Your task to perform on an android device: open app "Indeed Job Search" (install if not already installed) Image 0: 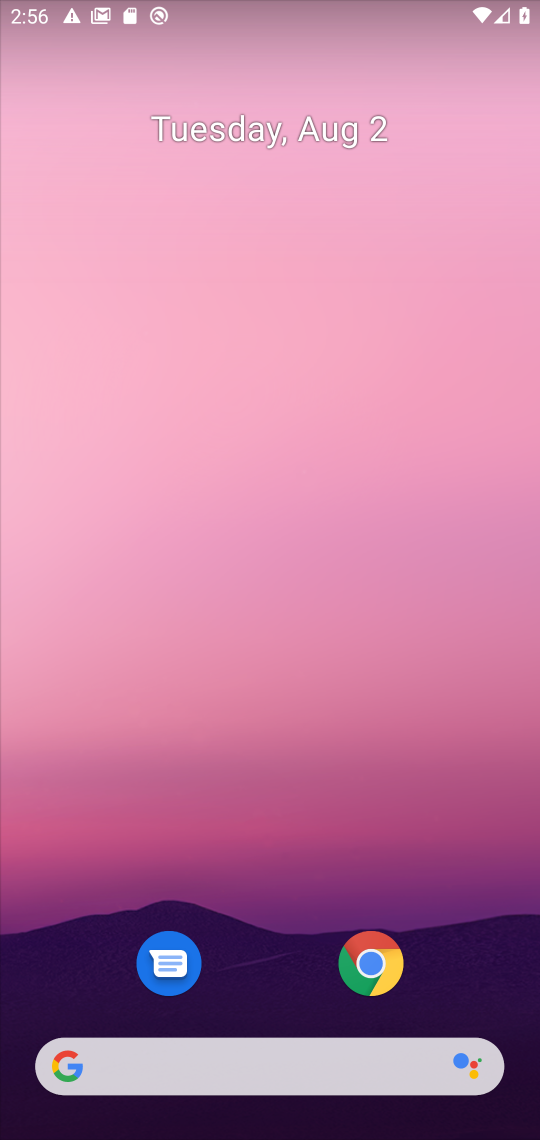
Step 0: drag from (229, 954) to (361, 90)
Your task to perform on an android device: open app "Indeed Job Search" (install if not already installed) Image 1: 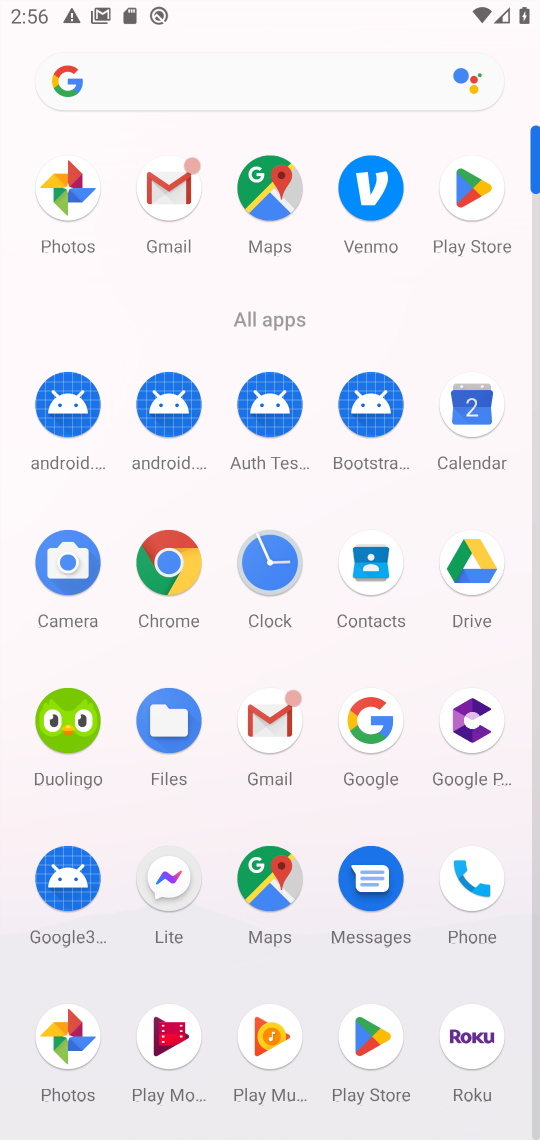
Step 1: click (458, 188)
Your task to perform on an android device: open app "Indeed Job Search" (install if not already installed) Image 2: 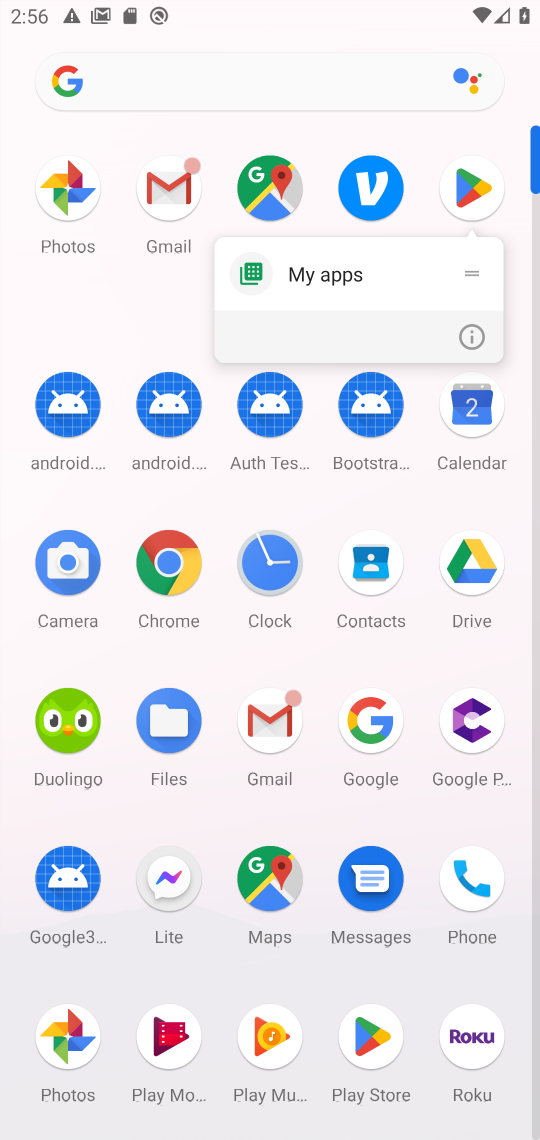
Step 2: click (467, 181)
Your task to perform on an android device: open app "Indeed Job Search" (install if not already installed) Image 3: 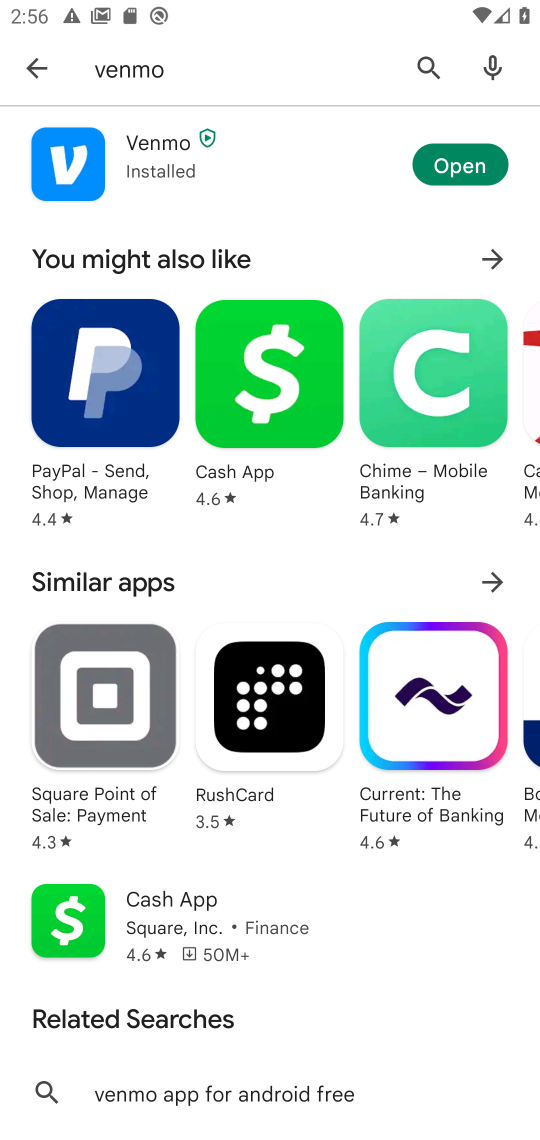
Step 3: click (422, 63)
Your task to perform on an android device: open app "Indeed Job Search" (install if not already installed) Image 4: 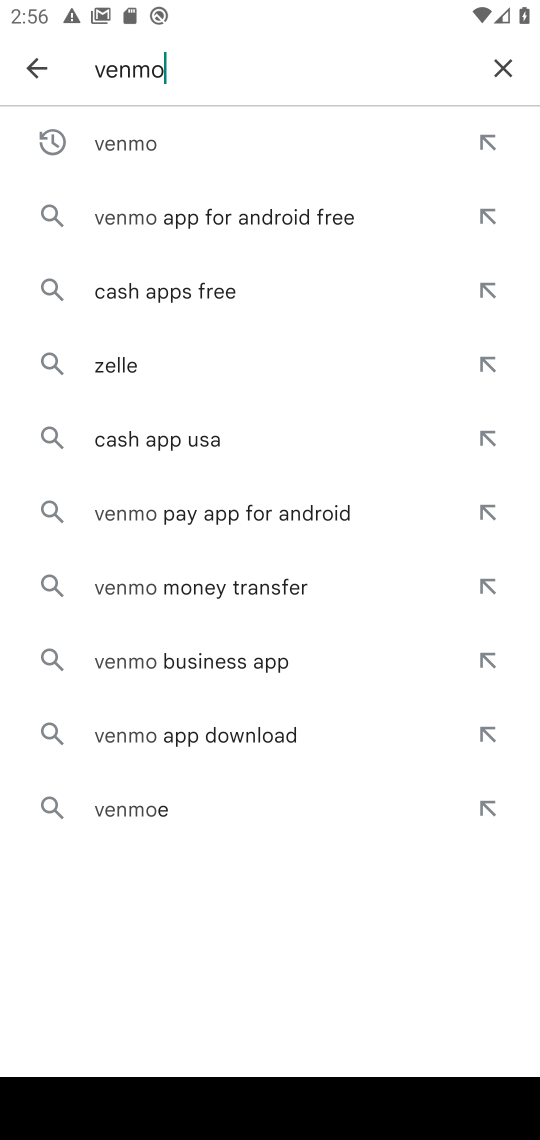
Step 4: click (505, 63)
Your task to perform on an android device: open app "Indeed Job Search" (install if not already installed) Image 5: 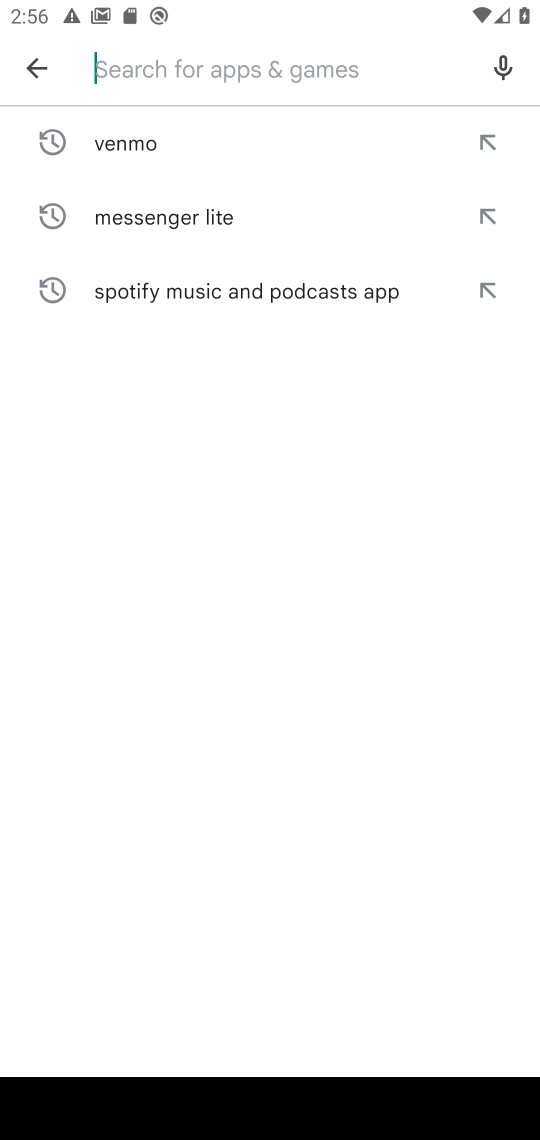
Step 5: type "Indeed Job Search"
Your task to perform on an android device: open app "Indeed Job Search" (install if not already installed) Image 6: 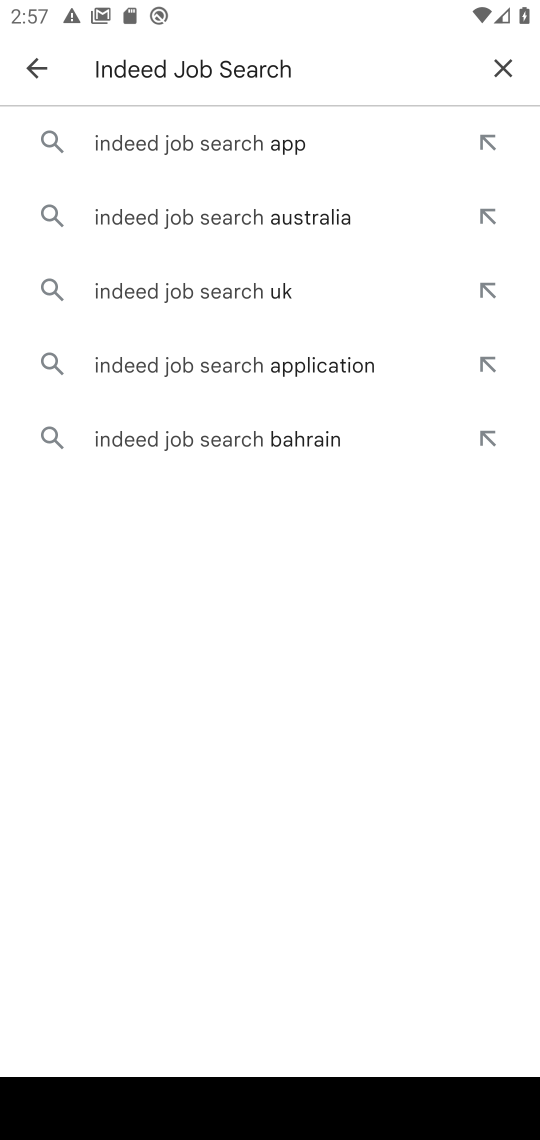
Step 6: click (218, 144)
Your task to perform on an android device: open app "Indeed Job Search" (install if not already installed) Image 7: 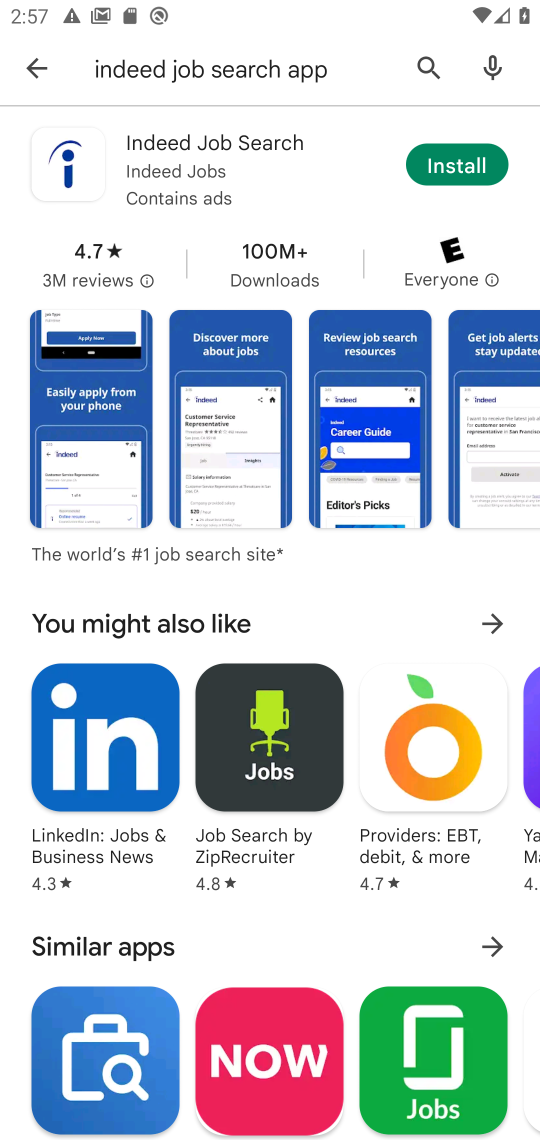
Step 7: click (431, 171)
Your task to perform on an android device: open app "Indeed Job Search" (install if not already installed) Image 8: 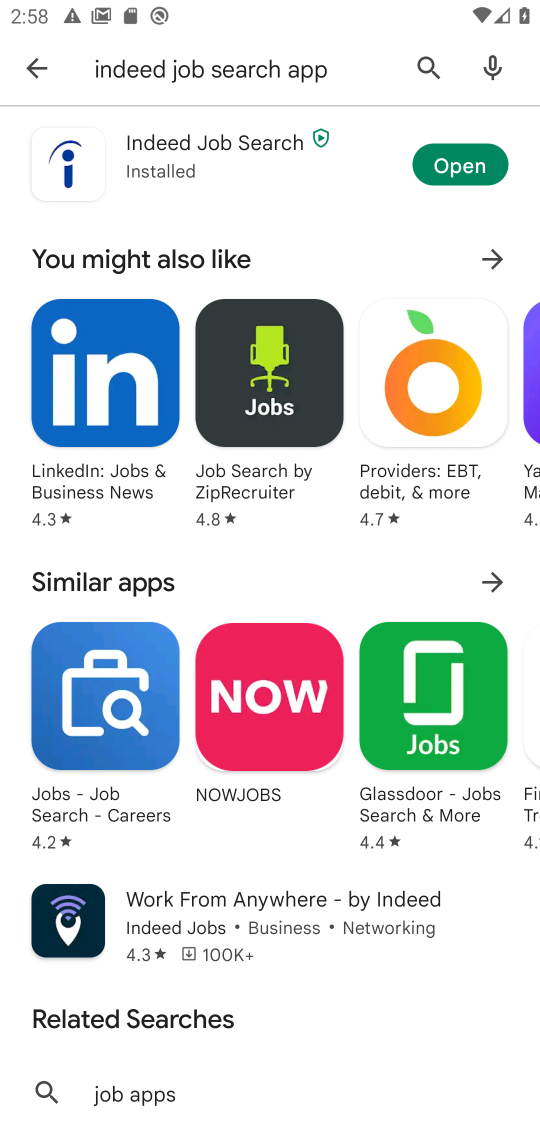
Step 8: click (447, 162)
Your task to perform on an android device: open app "Indeed Job Search" (install if not already installed) Image 9: 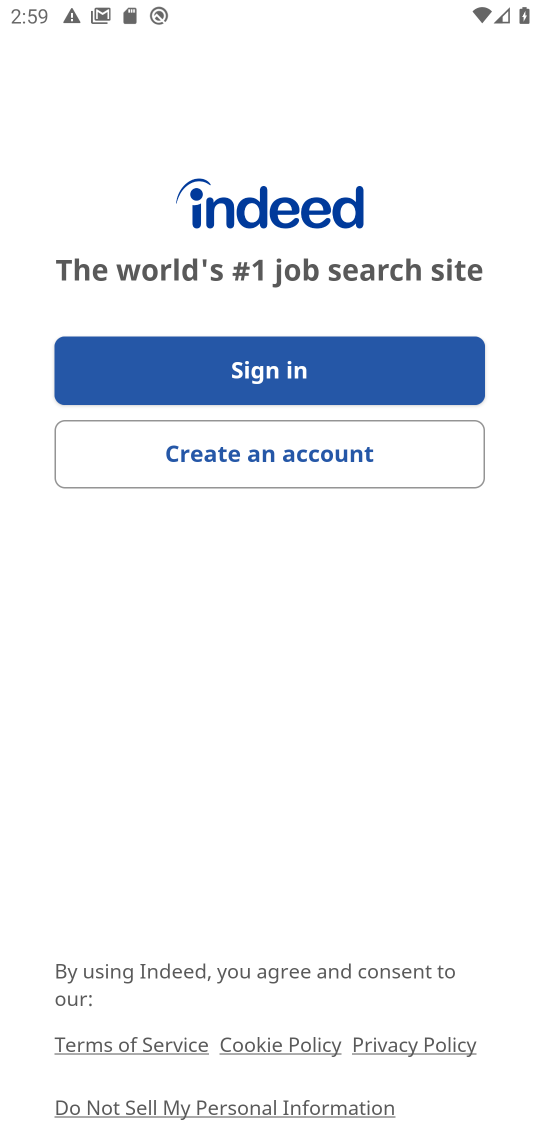
Step 9: task complete